Your task to perform on an android device: turn smart compose on in the gmail app Image 0: 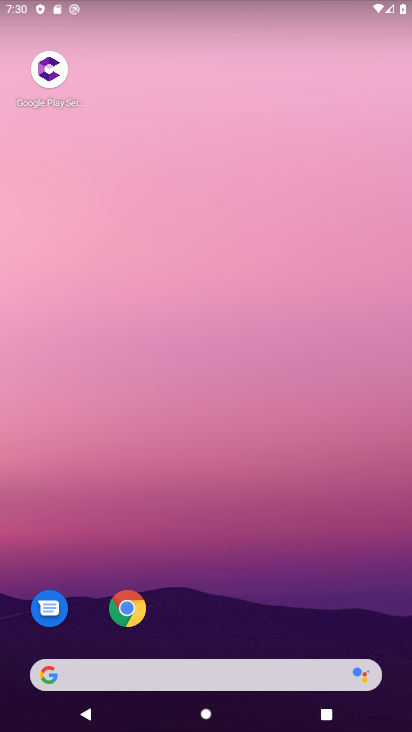
Step 0: drag from (281, 581) to (264, 166)
Your task to perform on an android device: turn smart compose on in the gmail app Image 1: 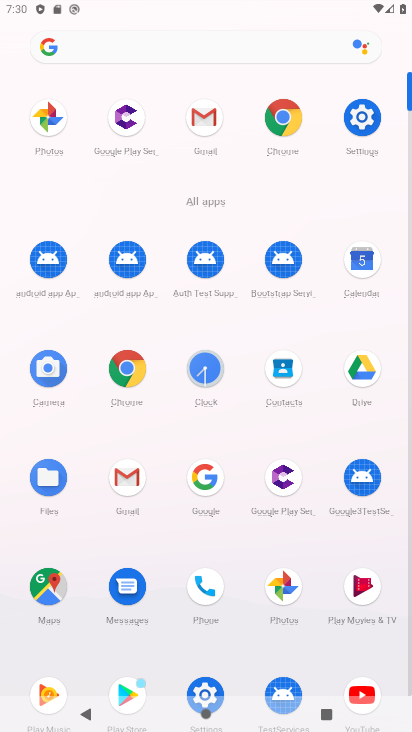
Step 1: click (123, 489)
Your task to perform on an android device: turn smart compose on in the gmail app Image 2: 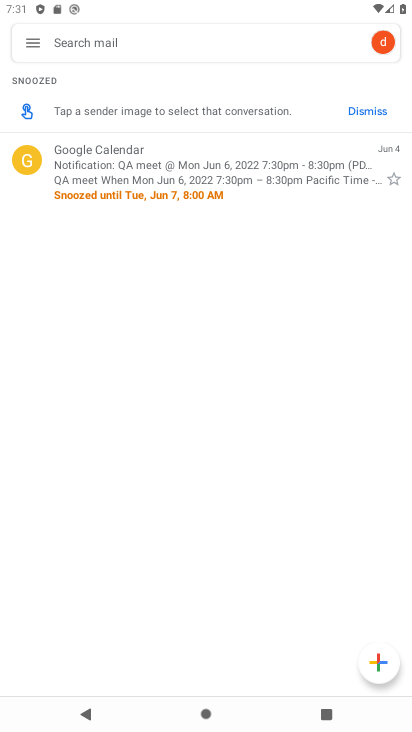
Step 2: click (31, 44)
Your task to perform on an android device: turn smart compose on in the gmail app Image 3: 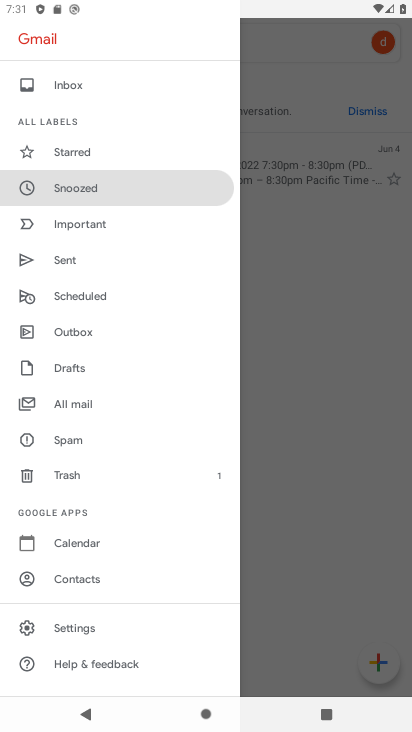
Step 3: click (84, 632)
Your task to perform on an android device: turn smart compose on in the gmail app Image 4: 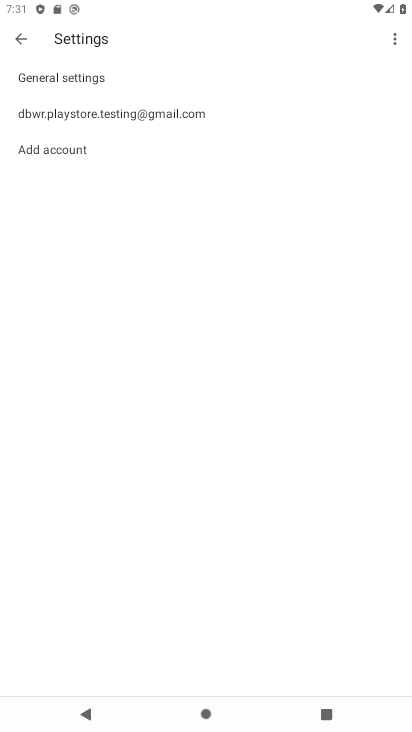
Step 4: click (173, 113)
Your task to perform on an android device: turn smart compose on in the gmail app Image 5: 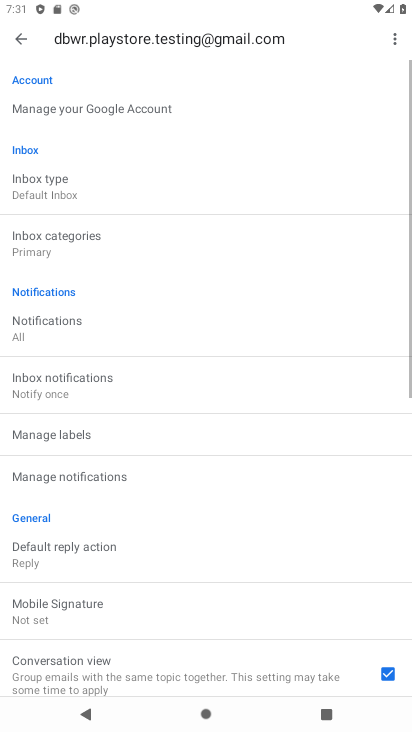
Step 5: task complete